Your task to perform on an android device: install app "Adobe Acrobat Reader: Edit PDF" Image 0: 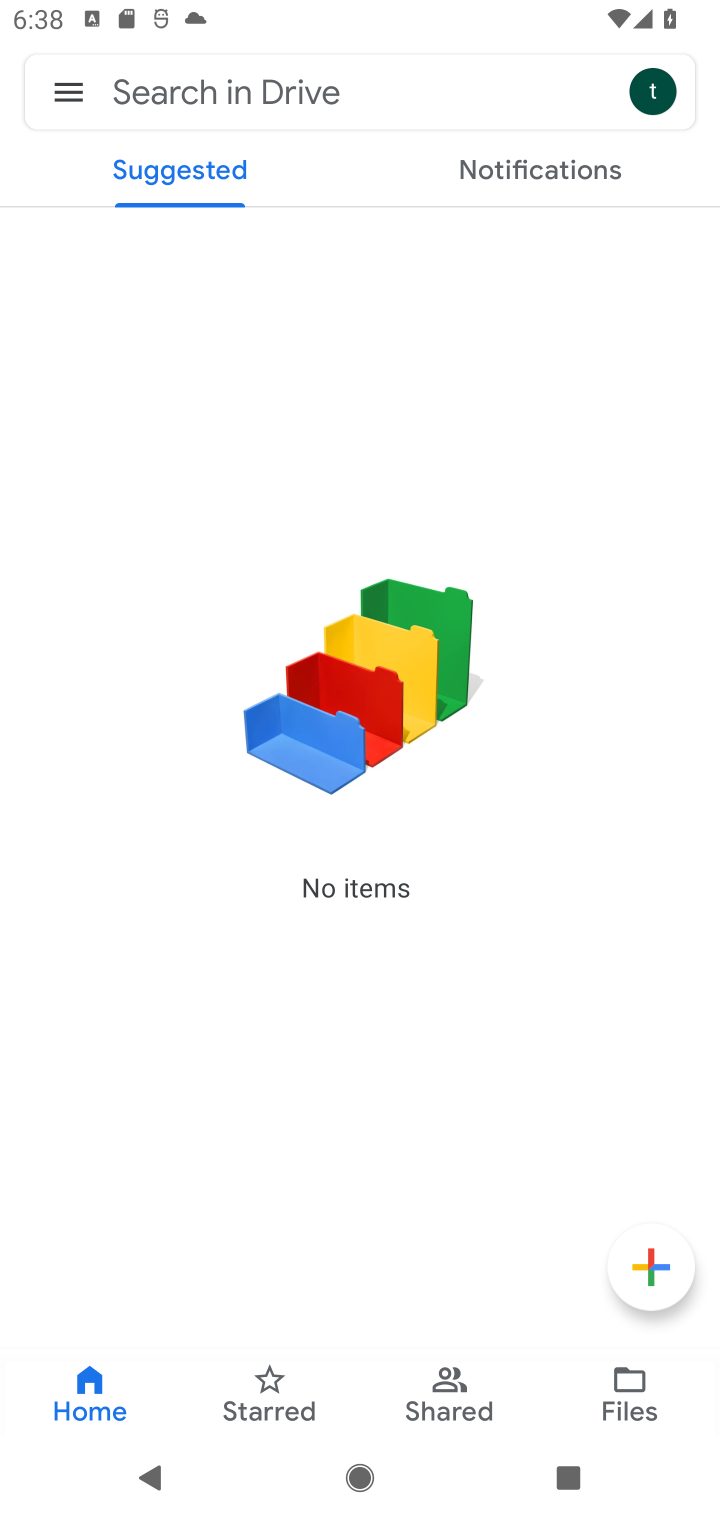
Step 0: press home button
Your task to perform on an android device: install app "Adobe Acrobat Reader: Edit PDF" Image 1: 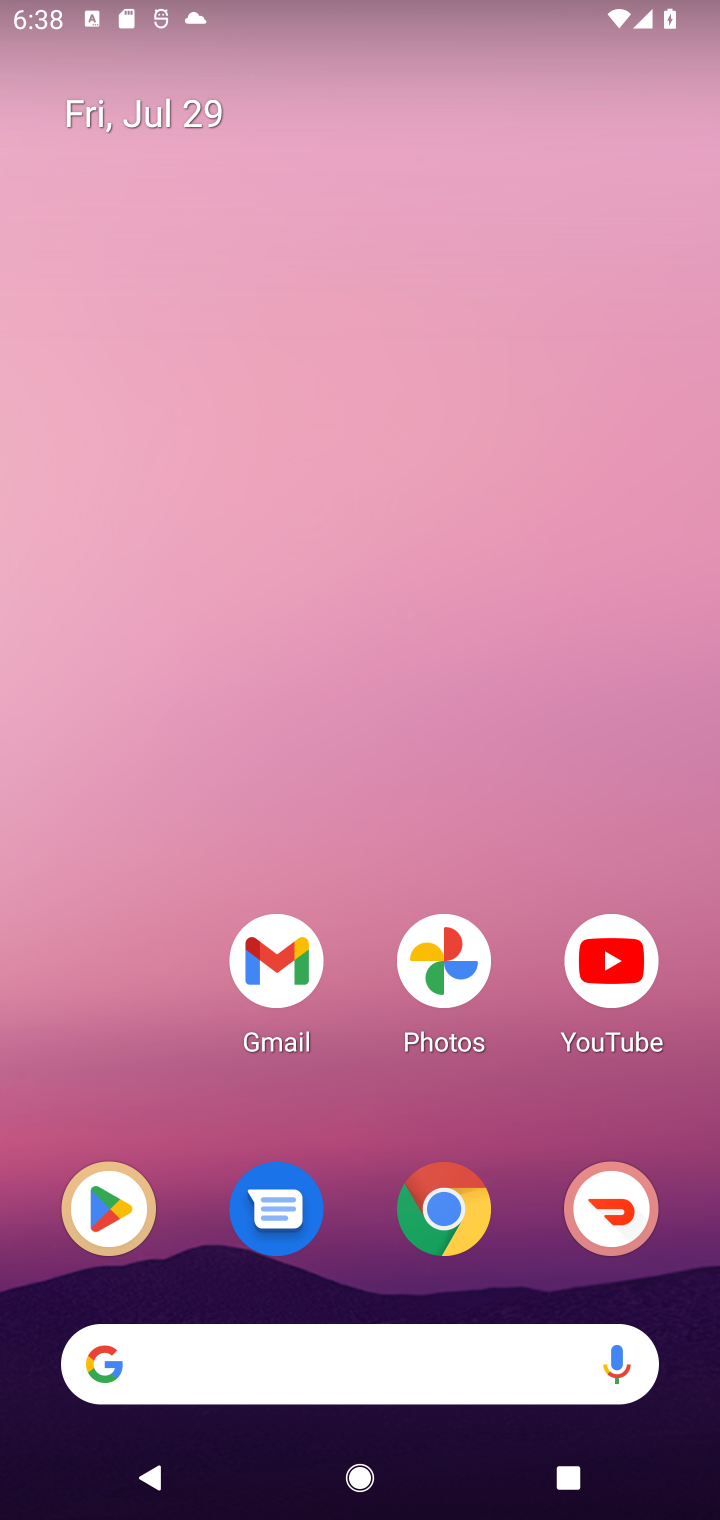
Step 1: click (116, 1226)
Your task to perform on an android device: install app "Adobe Acrobat Reader: Edit PDF" Image 2: 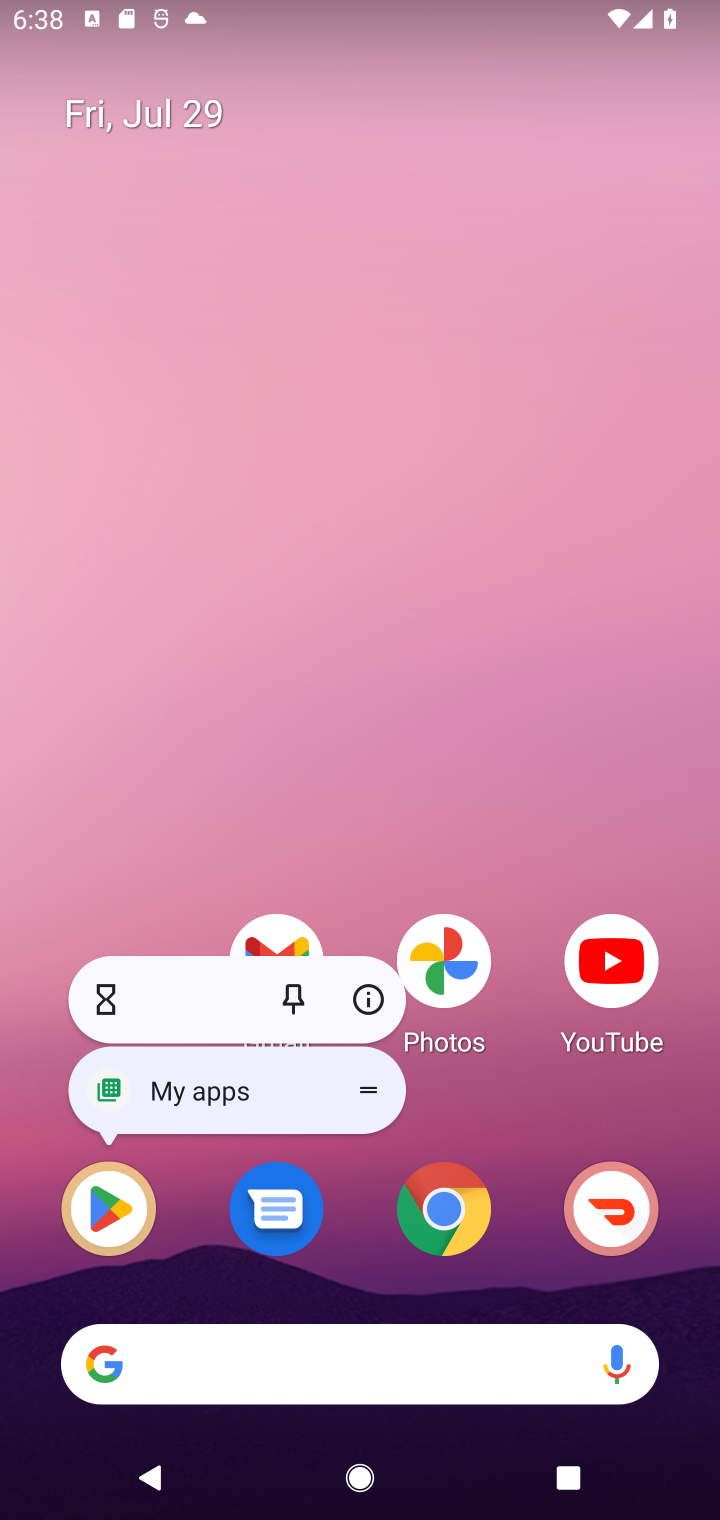
Step 2: click (116, 1212)
Your task to perform on an android device: install app "Adobe Acrobat Reader: Edit PDF" Image 3: 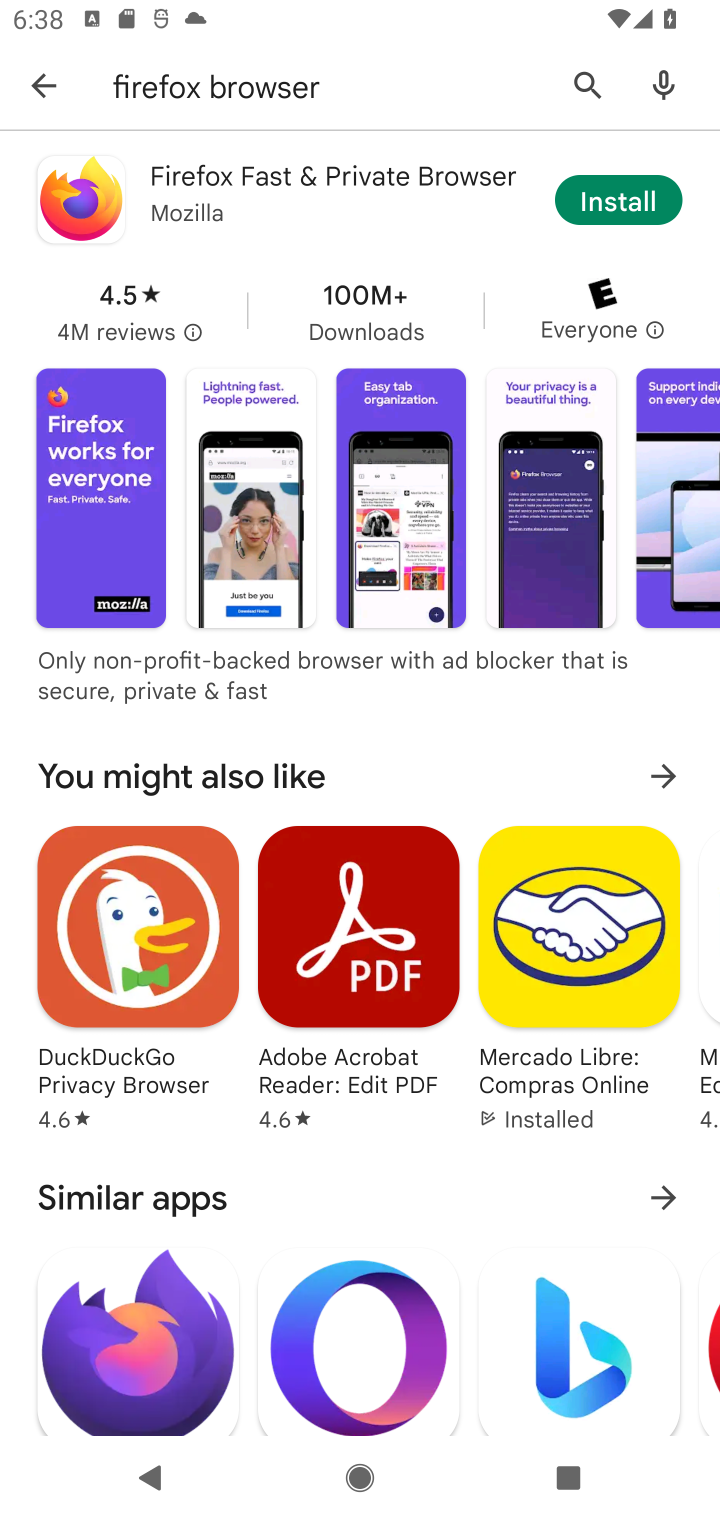
Step 3: click (591, 88)
Your task to perform on an android device: install app "Adobe Acrobat Reader: Edit PDF" Image 4: 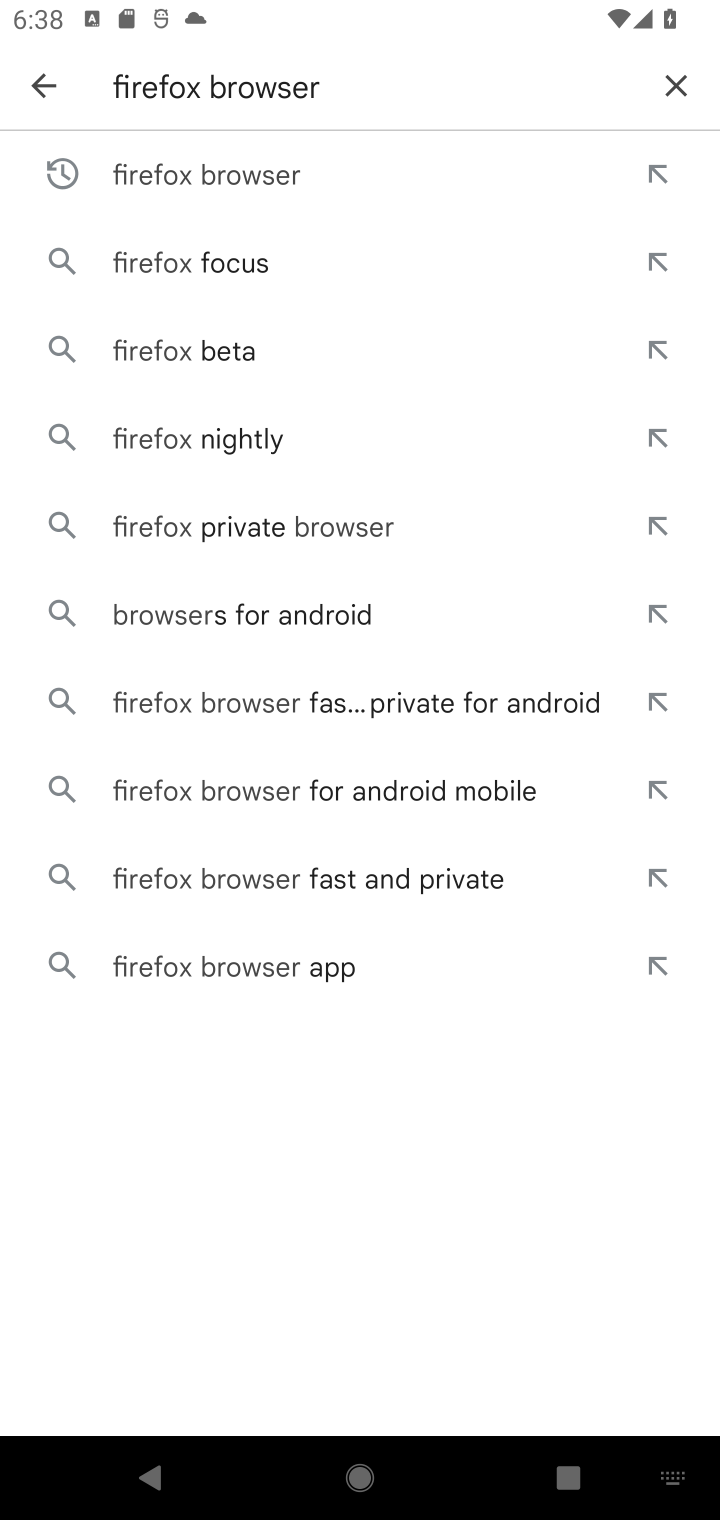
Step 4: click (687, 91)
Your task to perform on an android device: install app "Adobe Acrobat Reader: Edit PDF" Image 5: 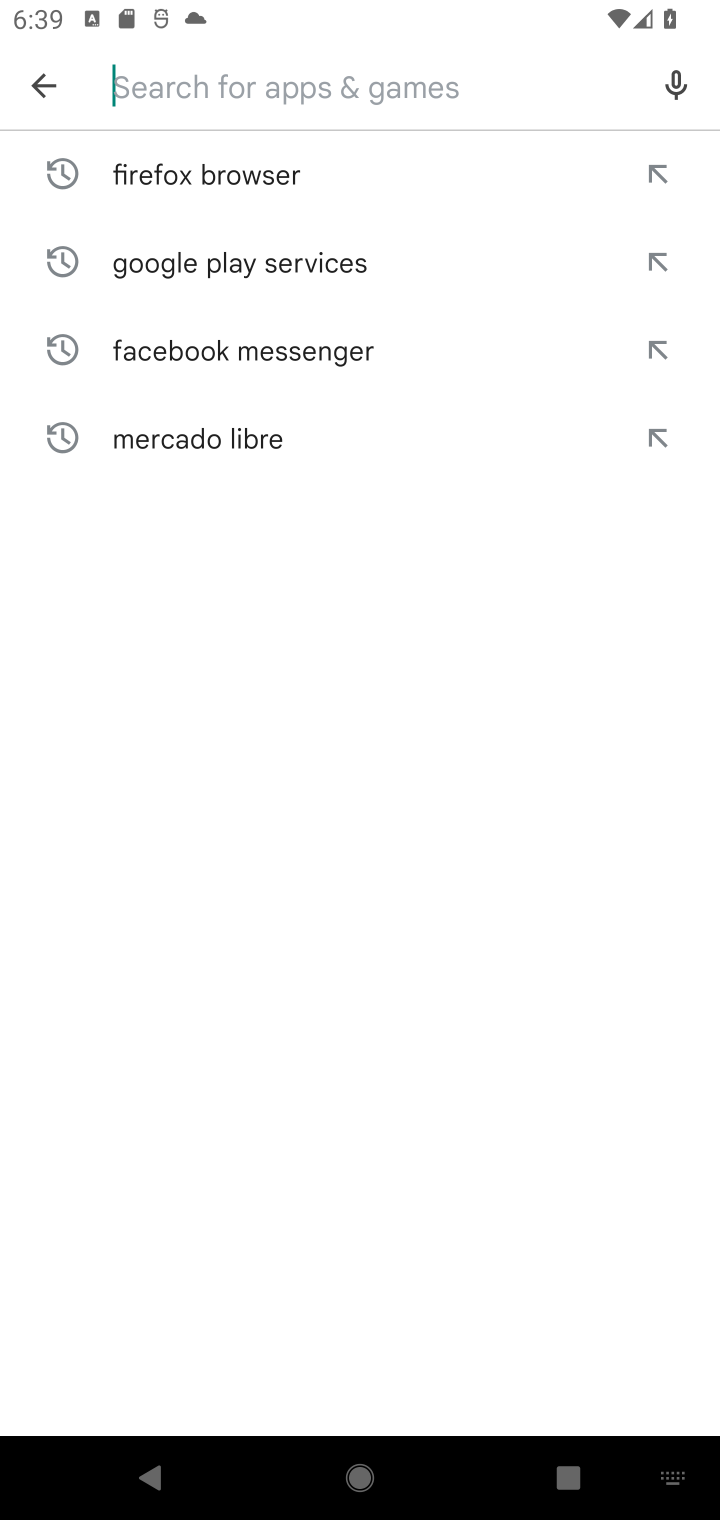
Step 5: click (224, 101)
Your task to perform on an android device: install app "Adobe Acrobat Reader: Edit PDF" Image 6: 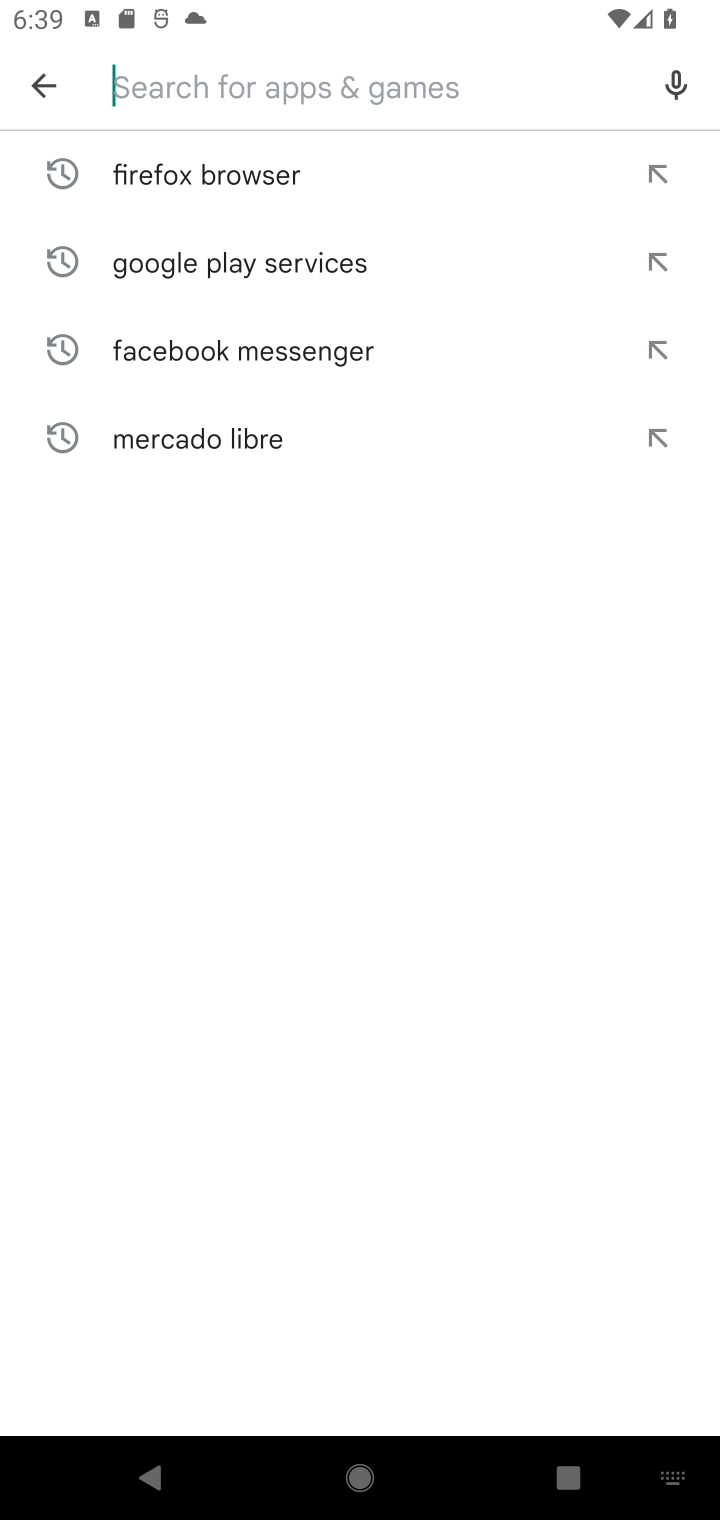
Step 6: type "Adobe Acrobat Reader: Edit PDF"
Your task to perform on an android device: install app "Adobe Acrobat Reader: Edit PDF" Image 7: 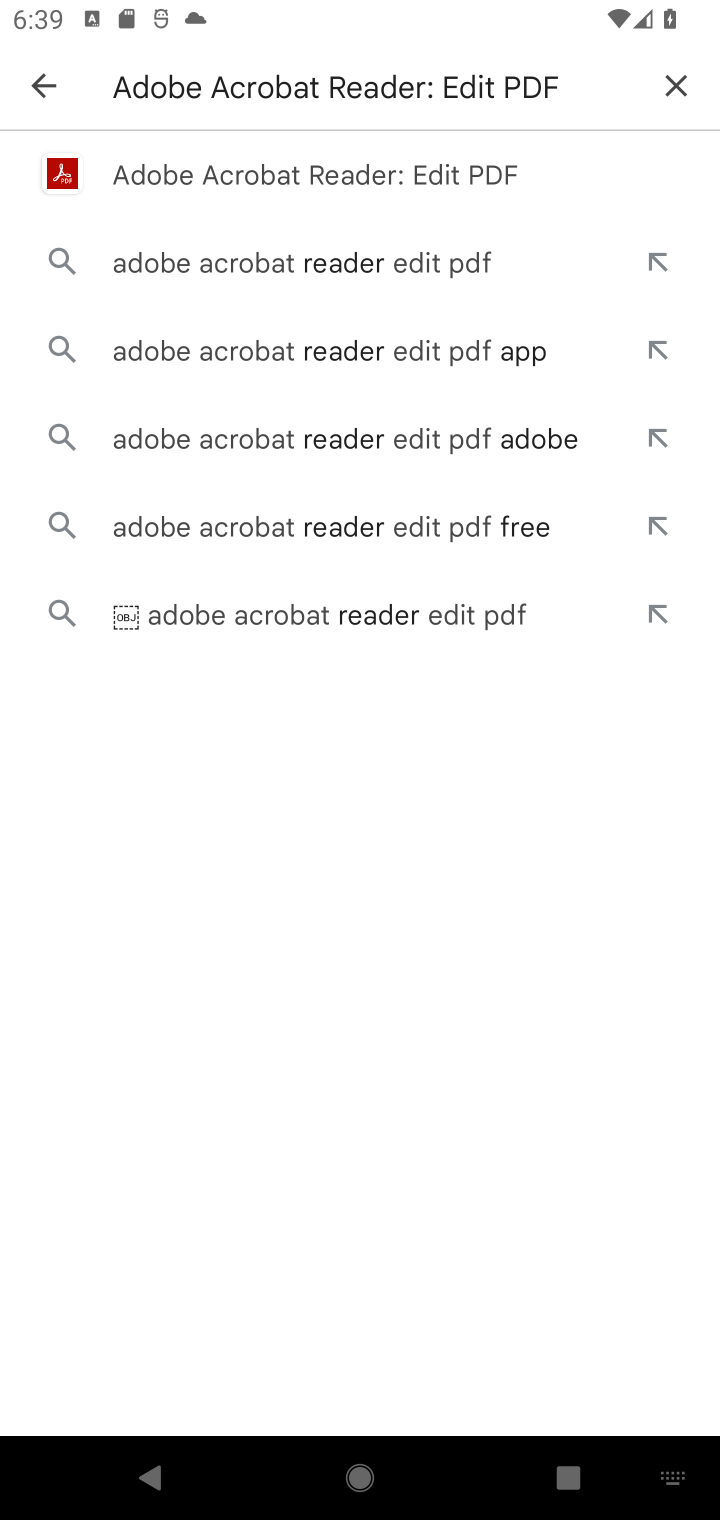
Step 7: click (338, 167)
Your task to perform on an android device: install app "Adobe Acrobat Reader: Edit PDF" Image 8: 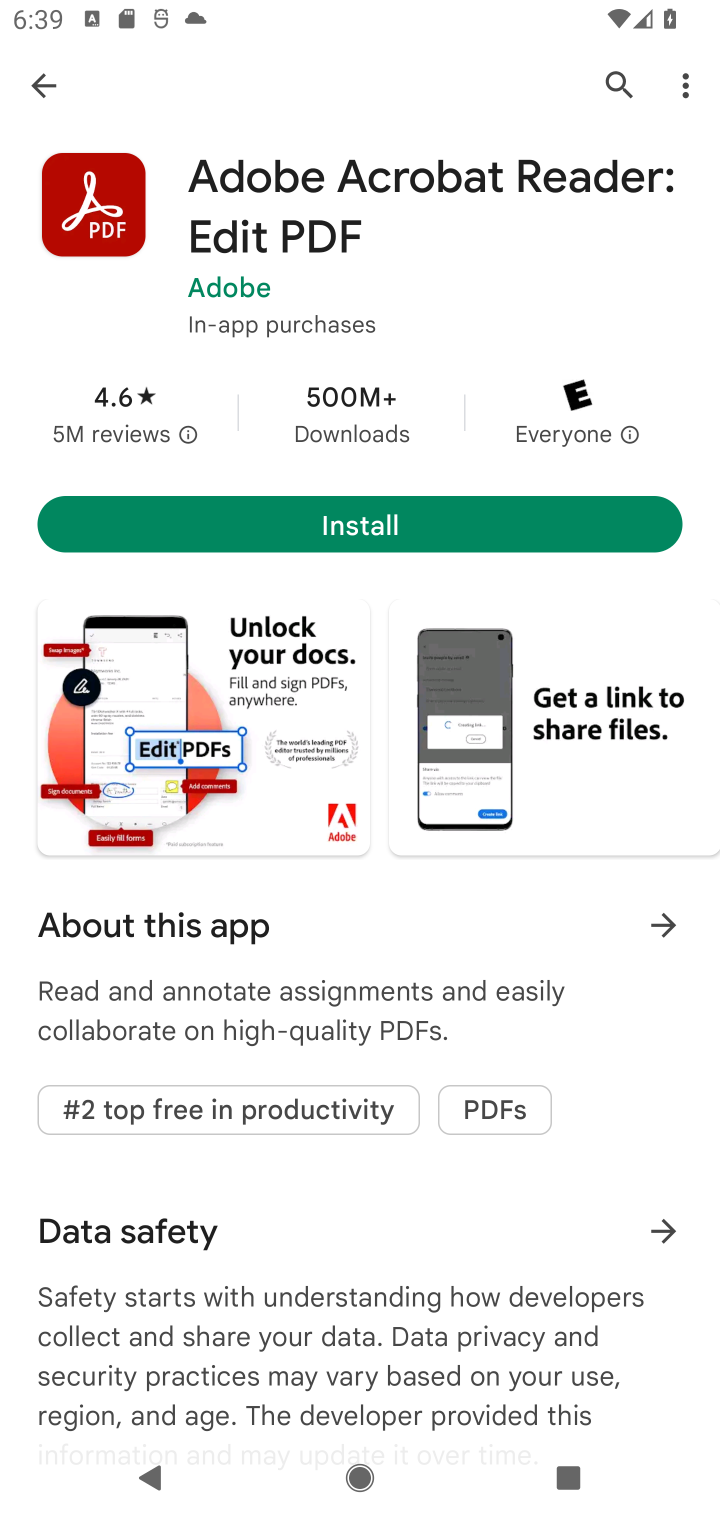
Step 8: click (331, 523)
Your task to perform on an android device: install app "Adobe Acrobat Reader: Edit PDF" Image 9: 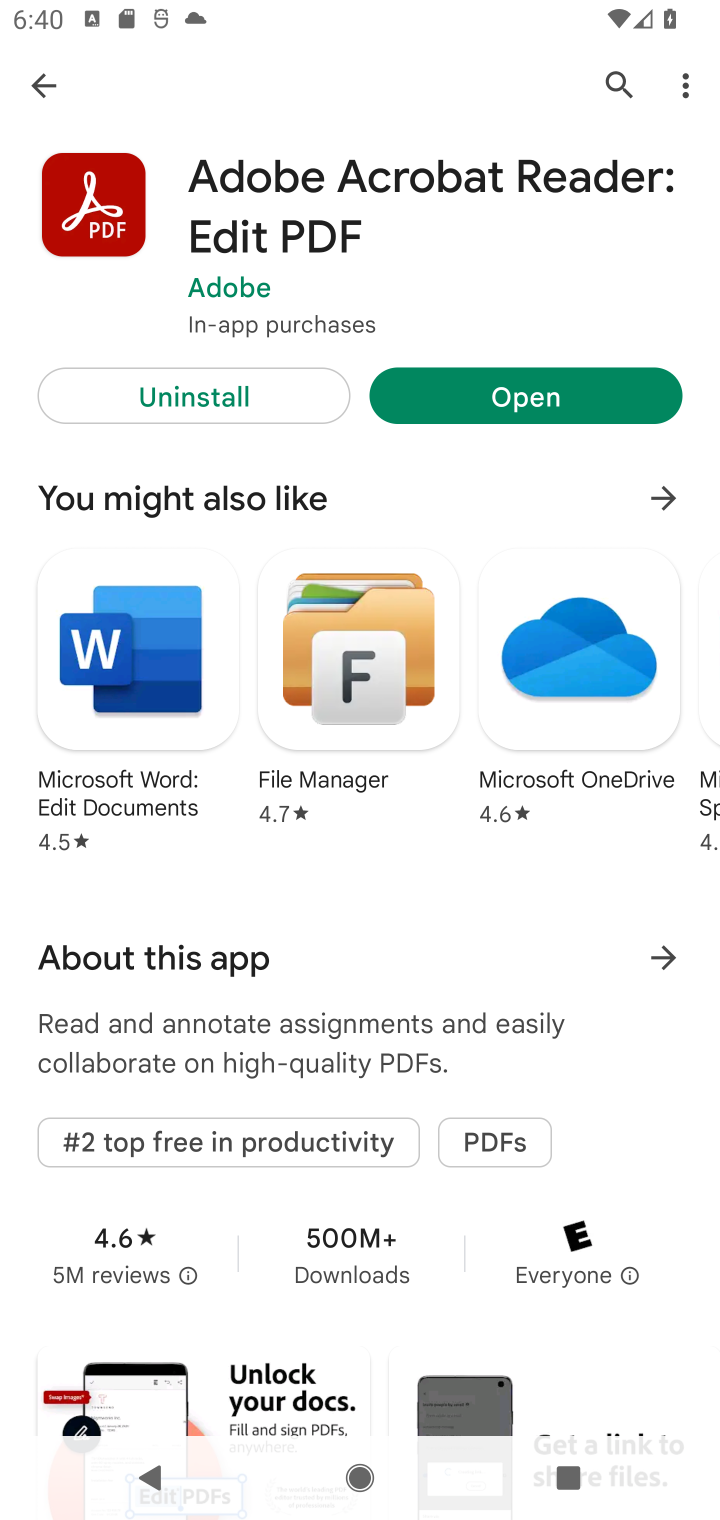
Step 9: task complete